Your task to perform on an android device: Open privacy settings Image 0: 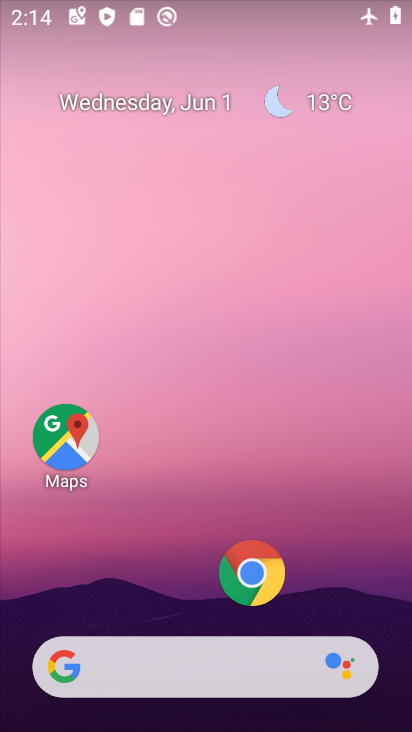
Step 0: drag from (194, 616) to (164, 11)
Your task to perform on an android device: Open privacy settings Image 1: 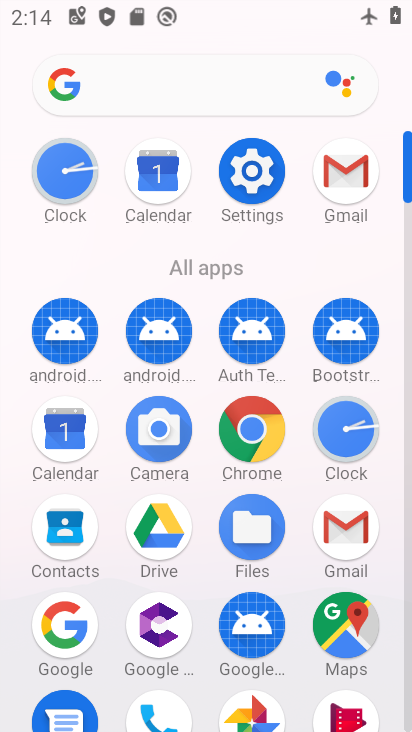
Step 1: click (231, 185)
Your task to perform on an android device: Open privacy settings Image 2: 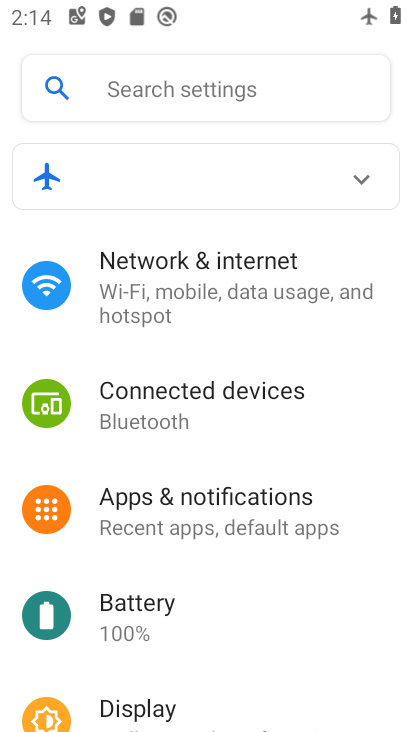
Step 2: drag from (207, 629) to (187, 115)
Your task to perform on an android device: Open privacy settings Image 3: 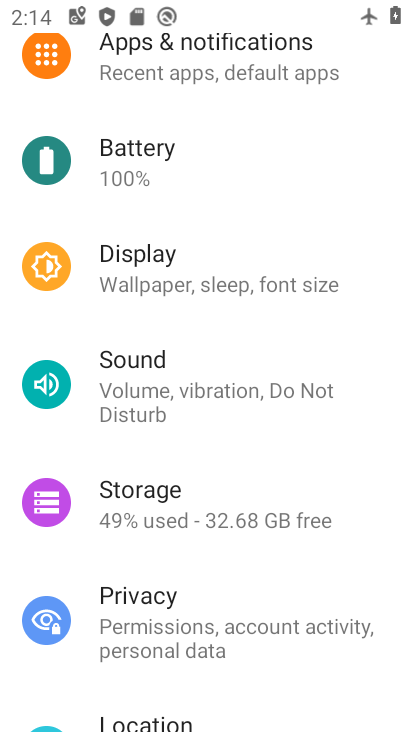
Step 3: click (178, 617)
Your task to perform on an android device: Open privacy settings Image 4: 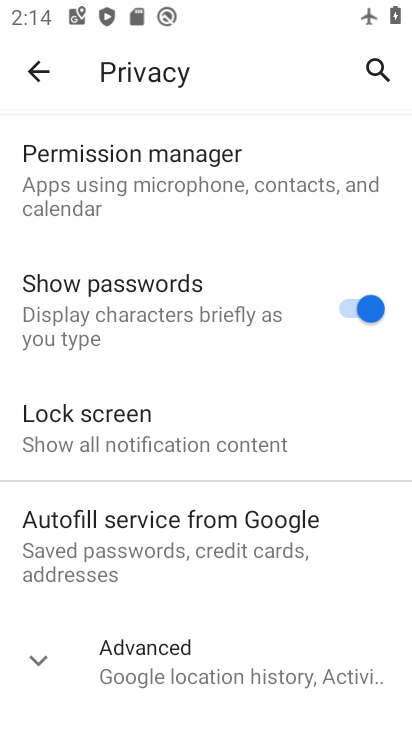
Step 4: click (169, 644)
Your task to perform on an android device: Open privacy settings Image 5: 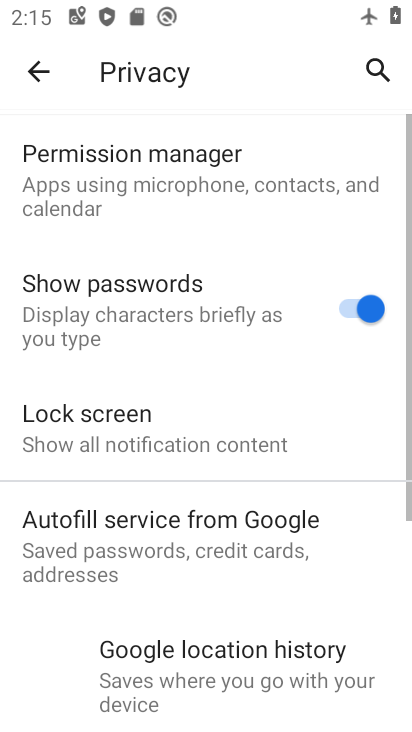
Step 5: task complete